Your task to perform on an android device: change the clock style Image 0: 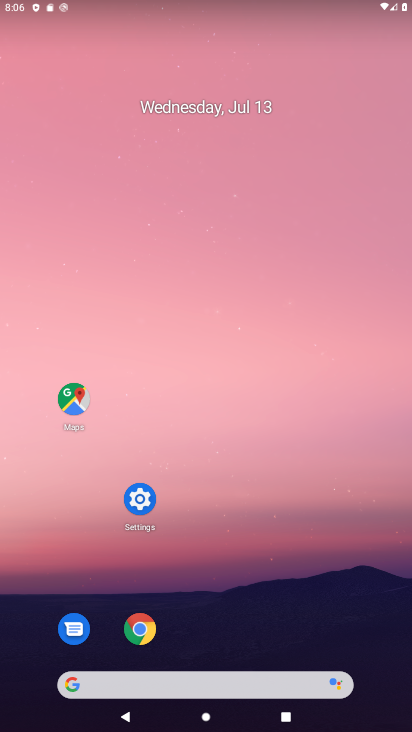
Step 0: drag from (375, 669) to (307, 137)
Your task to perform on an android device: change the clock style Image 1: 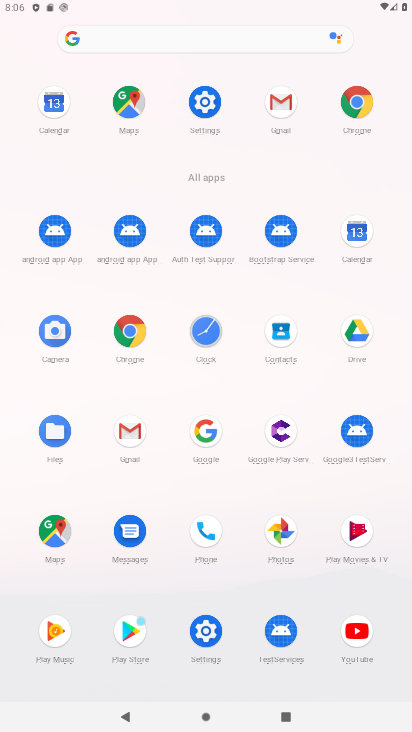
Step 1: click (195, 342)
Your task to perform on an android device: change the clock style Image 2: 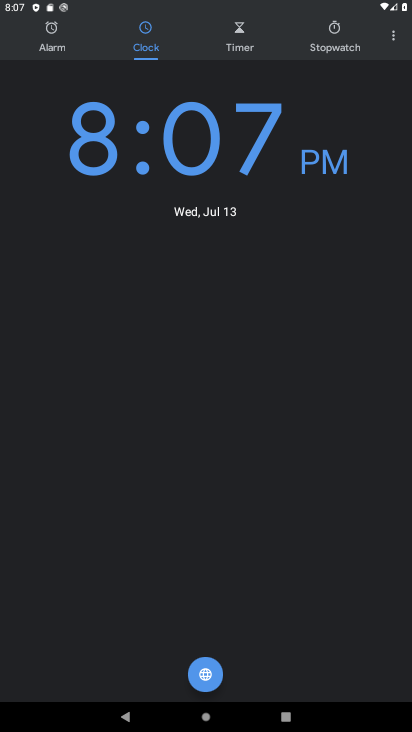
Step 2: click (395, 35)
Your task to perform on an android device: change the clock style Image 3: 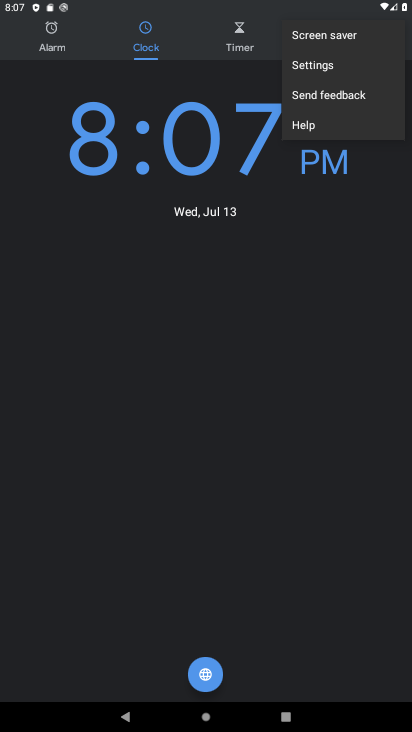
Step 3: click (328, 62)
Your task to perform on an android device: change the clock style Image 4: 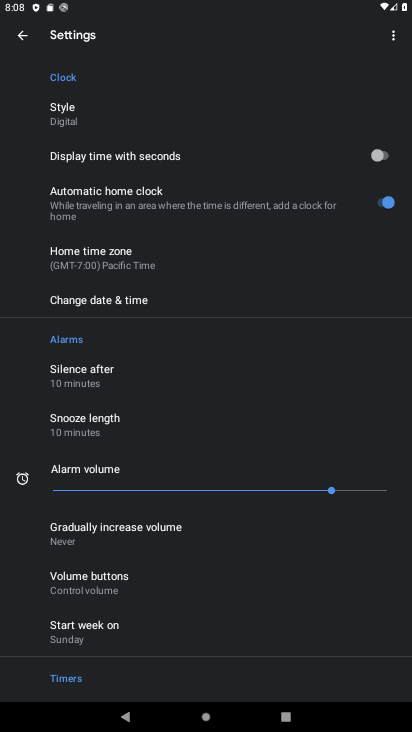
Step 4: click (75, 108)
Your task to perform on an android device: change the clock style Image 5: 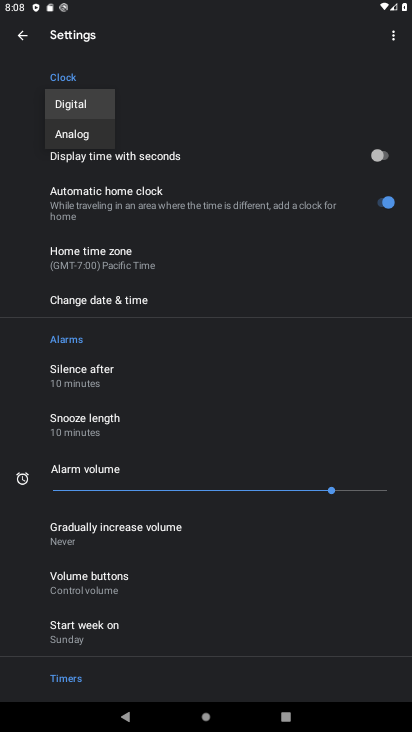
Step 5: click (78, 132)
Your task to perform on an android device: change the clock style Image 6: 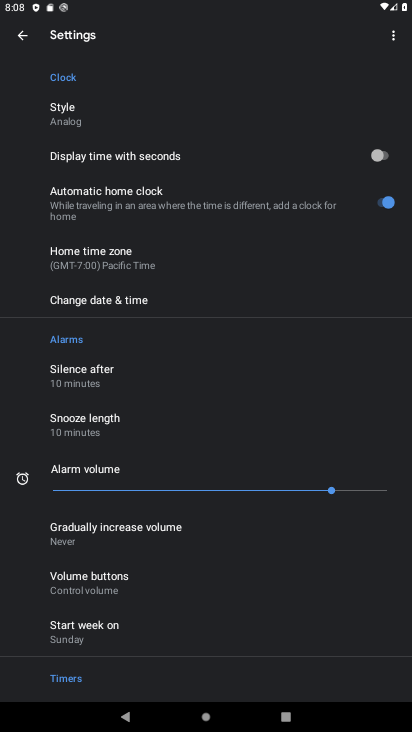
Step 6: task complete